Your task to perform on an android device: Search for jbl flip 4 on amazon.com, select the first entry, and add it to the cart. Image 0: 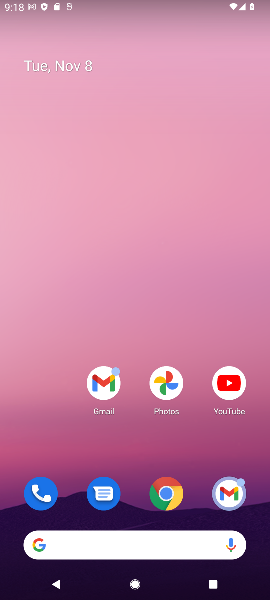
Step 0: click (170, 495)
Your task to perform on an android device: Search for jbl flip 4 on amazon.com, select the first entry, and add it to the cart. Image 1: 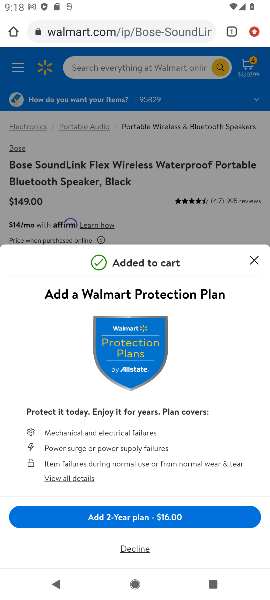
Step 1: click (117, 33)
Your task to perform on an android device: Search for jbl flip 4 on amazon.com, select the first entry, and add it to the cart. Image 2: 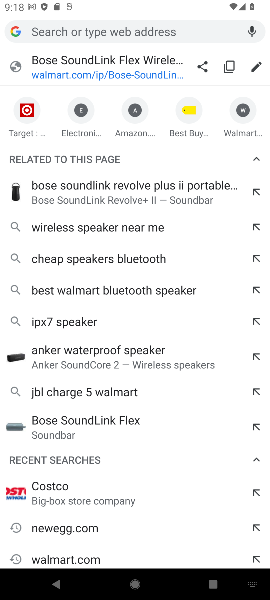
Step 2: click (133, 112)
Your task to perform on an android device: Search for jbl flip 4 on amazon.com, select the first entry, and add it to the cart. Image 3: 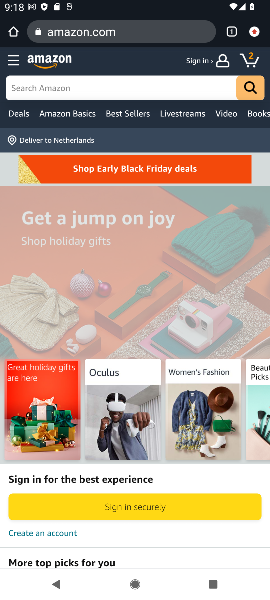
Step 3: click (85, 86)
Your task to perform on an android device: Search for jbl flip 4 on amazon.com, select the first entry, and add it to the cart. Image 4: 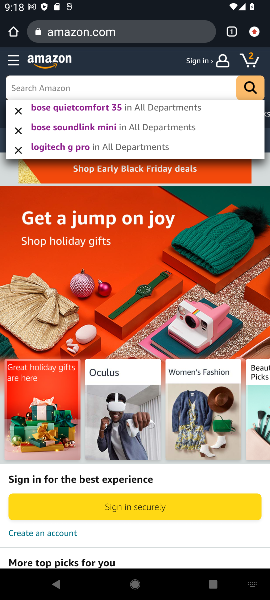
Step 4: type " jbl flip 4"
Your task to perform on an android device: Search for jbl flip 4 on amazon.com, select the first entry, and add it to the cart. Image 5: 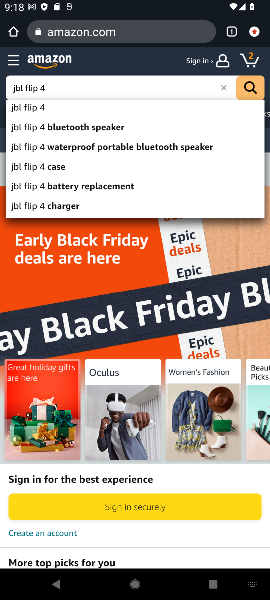
Step 5: click (17, 109)
Your task to perform on an android device: Search for jbl flip 4 on amazon.com, select the first entry, and add it to the cart. Image 6: 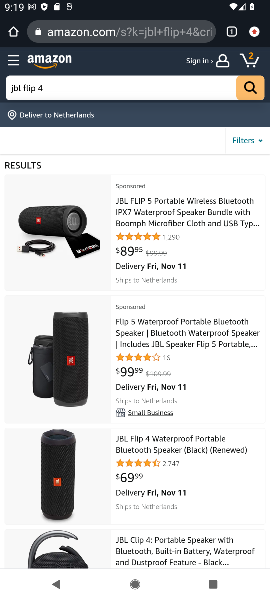
Step 6: task complete